Your task to perform on an android device: What's the weather going to be tomorrow? Image 0: 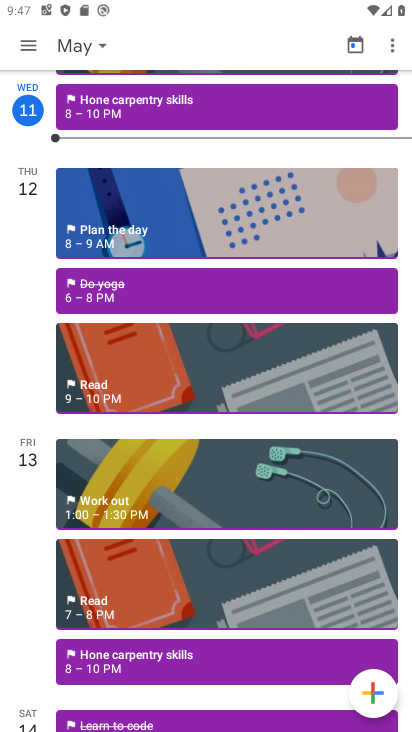
Step 0: press home button
Your task to perform on an android device: What's the weather going to be tomorrow? Image 1: 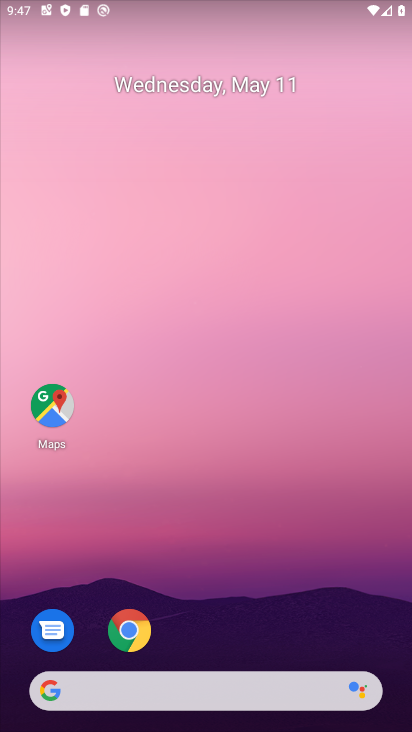
Step 1: click (106, 627)
Your task to perform on an android device: What's the weather going to be tomorrow? Image 2: 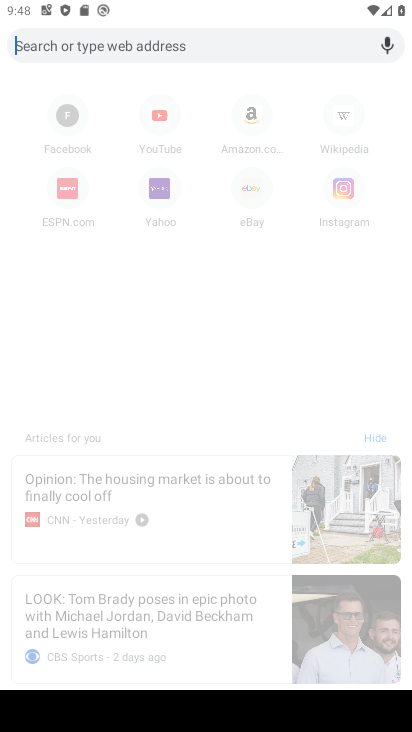
Step 2: click (150, 51)
Your task to perform on an android device: What's the weather going to be tomorrow? Image 3: 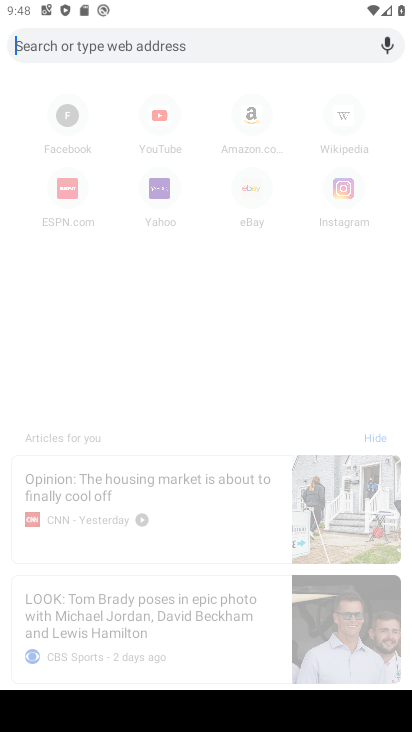
Step 3: type "What's the weather going to be tomorrow?"
Your task to perform on an android device: What's the weather going to be tomorrow? Image 4: 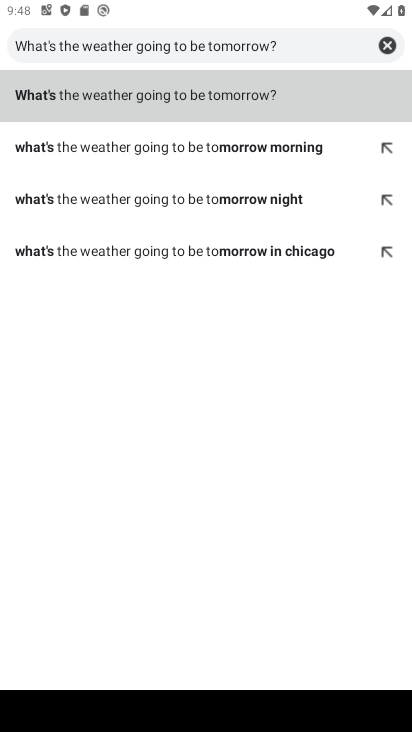
Step 4: click (170, 99)
Your task to perform on an android device: What's the weather going to be tomorrow? Image 5: 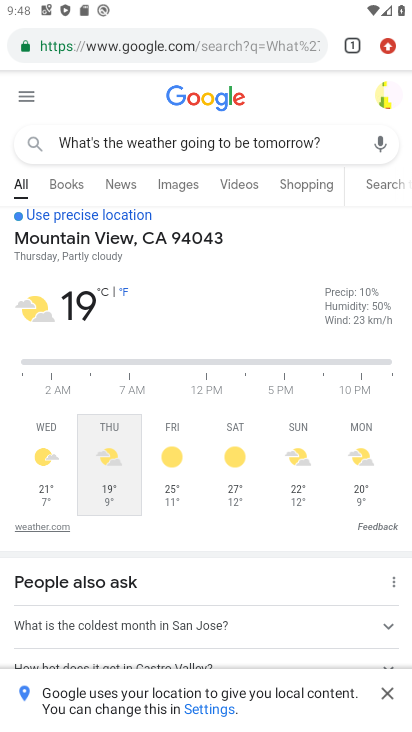
Step 5: task complete